Your task to perform on an android device: toggle airplane mode Image 0: 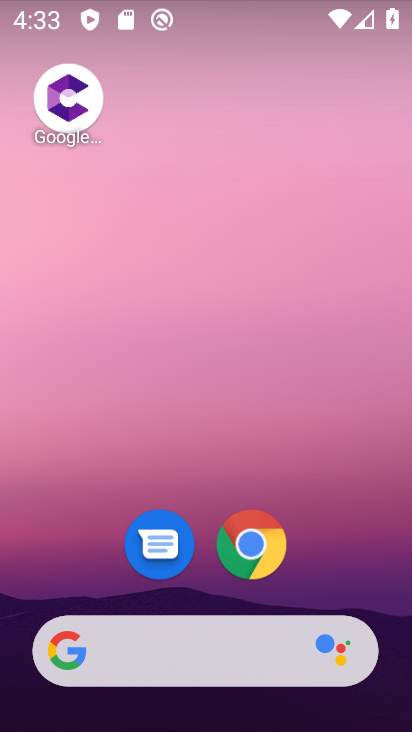
Step 0: drag from (327, 529) to (275, 125)
Your task to perform on an android device: toggle airplane mode Image 1: 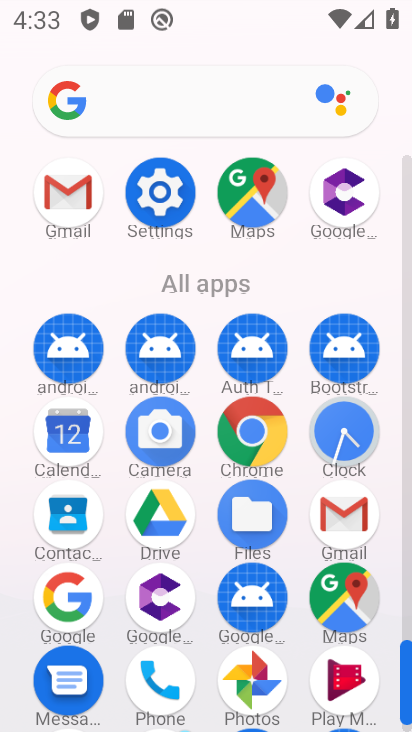
Step 1: click (162, 193)
Your task to perform on an android device: toggle airplane mode Image 2: 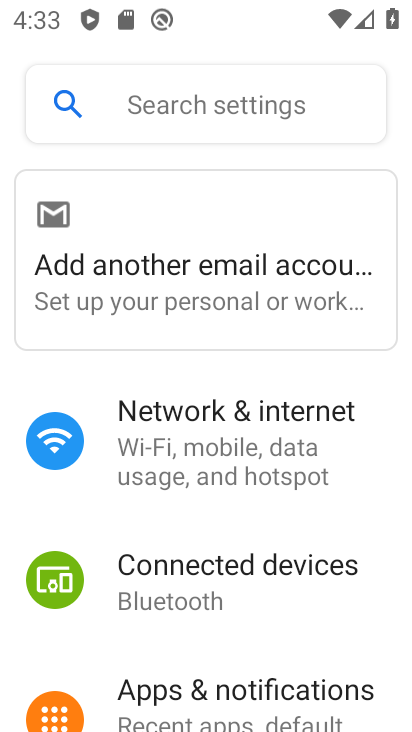
Step 2: click (204, 446)
Your task to perform on an android device: toggle airplane mode Image 3: 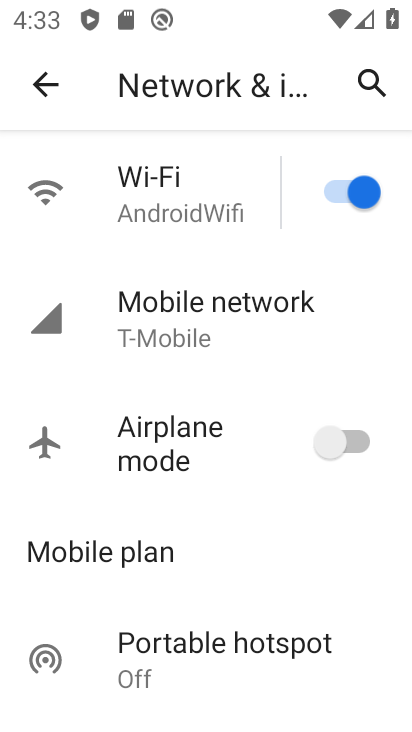
Step 3: click (353, 435)
Your task to perform on an android device: toggle airplane mode Image 4: 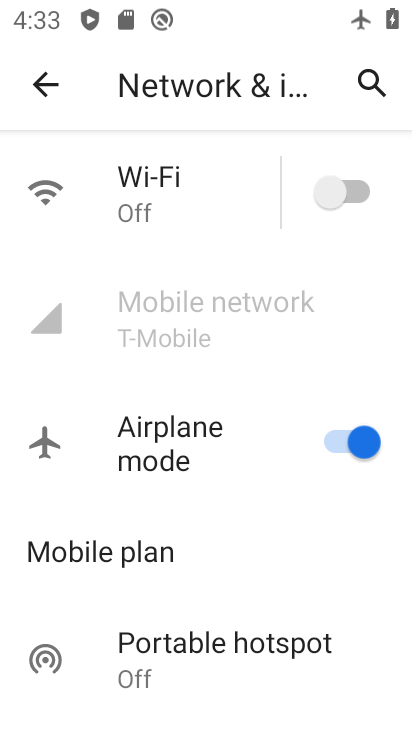
Step 4: task complete